Your task to perform on an android device: Open Maps and search for coffee Image 0: 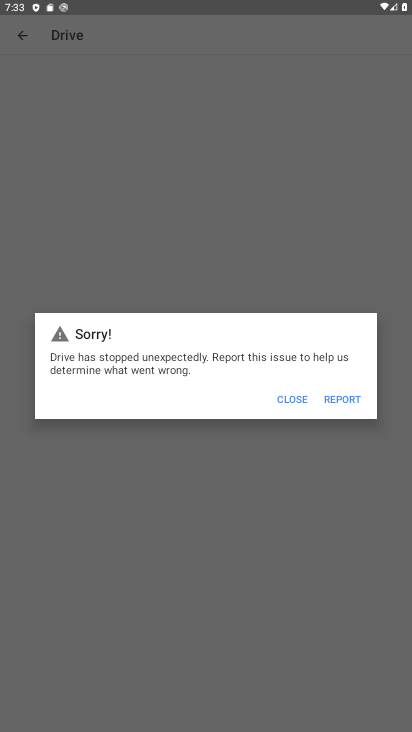
Step 0: press home button
Your task to perform on an android device: Open Maps and search for coffee Image 1: 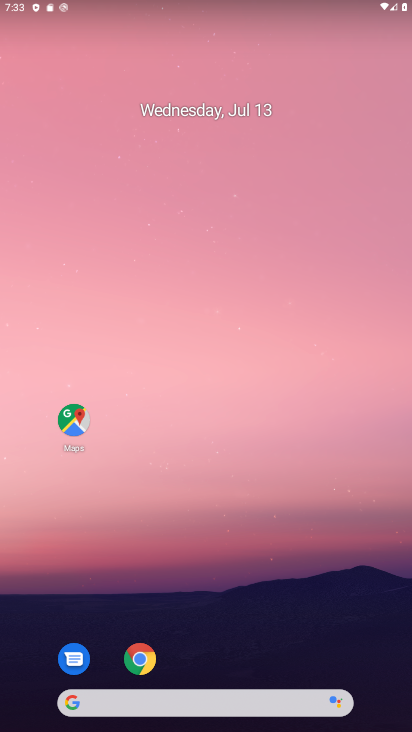
Step 1: click (81, 399)
Your task to perform on an android device: Open Maps and search for coffee Image 2: 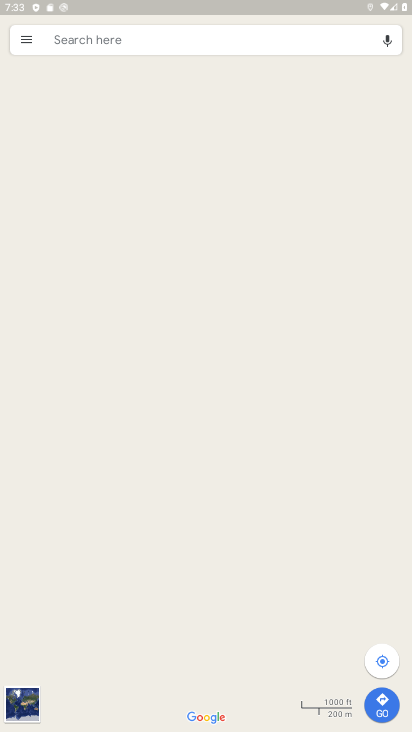
Step 2: click (199, 50)
Your task to perform on an android device: Open Maps and search for coffee Image 3: 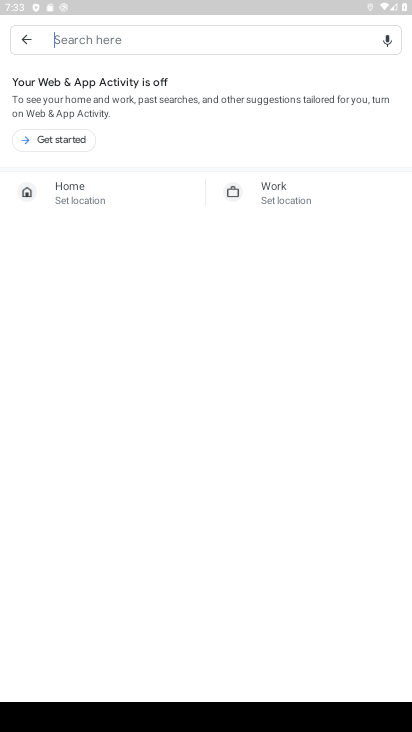
Step 3: type "coffee"
Your task to perform on an android device: Open Maps and search for coffee Image 4: 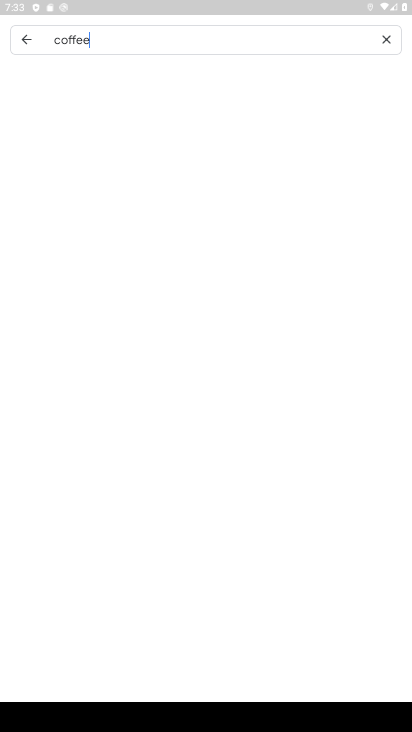
Step 4: type ""
Your task to perform on an android device: Open Maps and search for coffee Image 5: 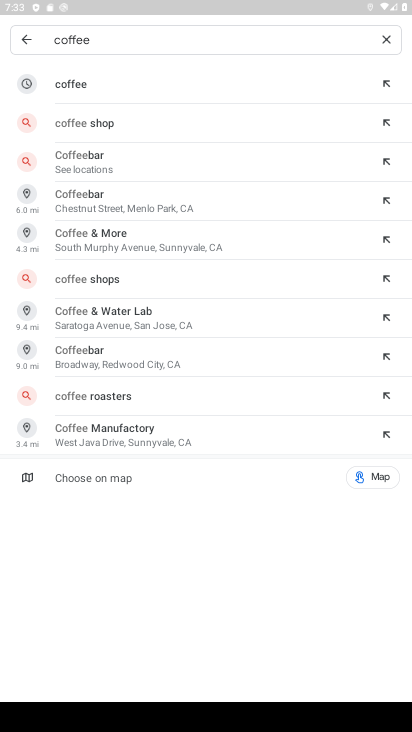
Step 5: click (268, 75)
Your task to perform on an android device: Open Maps and search for coffee Image 6: 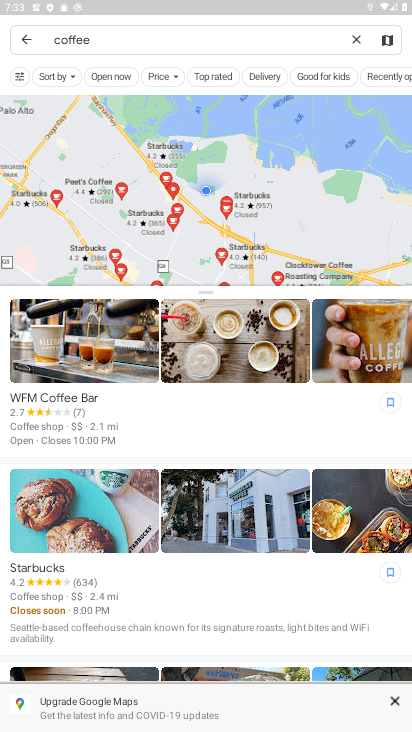
Step 6: task complete